Your task to perform on an android device: Show me the alarms in the clock app Image 0: 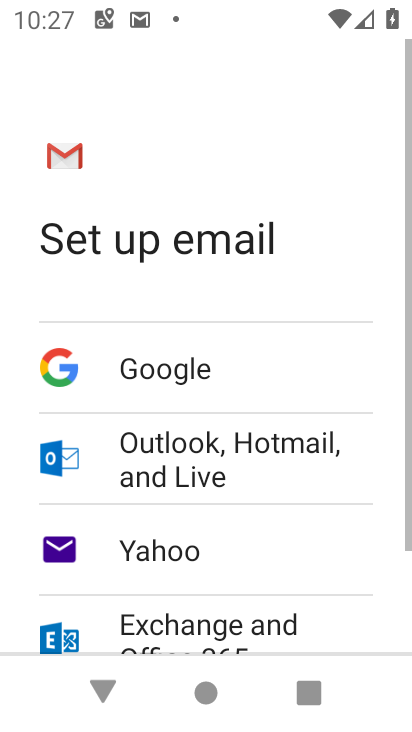
Step 0: press home button
Your task to perform on an android device: Show me the alarms in the clock app Image 1: 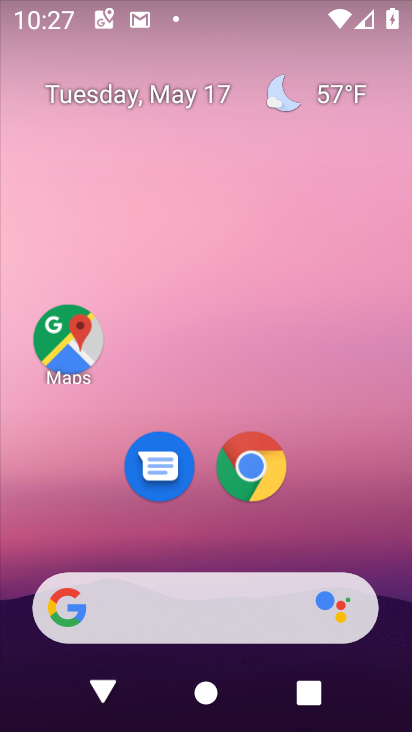
Step 1: drag from (253, 604) to (220, 218)
Your task to perform on an android device: Show me the alarms in the clock app Image 2: 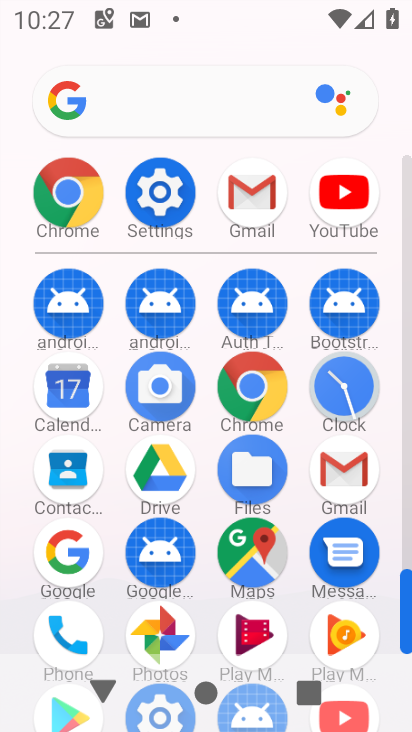
Step 2: click (336, 391)
Your task to perform on an android device: Show me the alarms in the clock app Image 3: 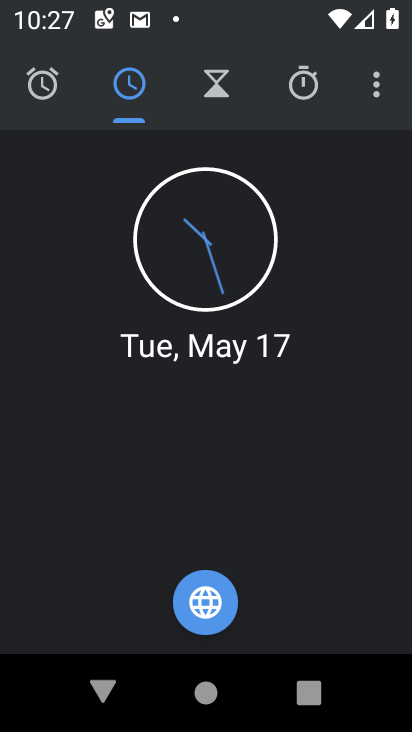
Step 3: click (370, 100)
Your task to perform on an android device: Show me the alarms in the clock app Image 4: 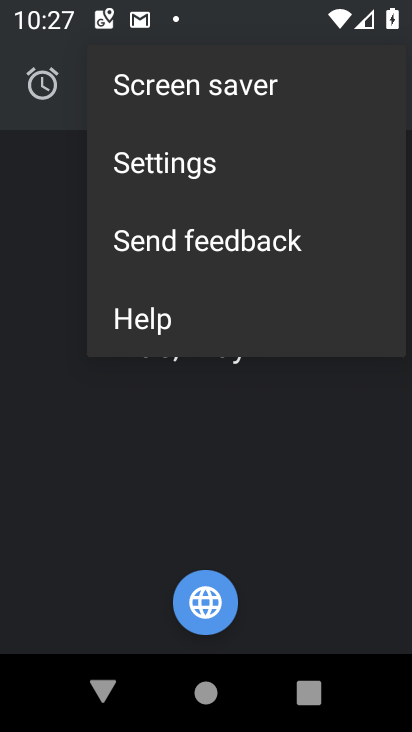
Step 4: click (37, 86)
Your task to perform on an android device: Show me the alarms in the clock app Image 5: 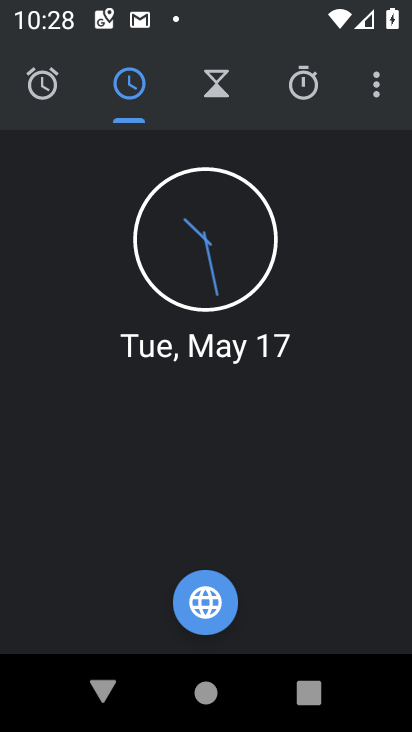
Step 5: click (29, 94)
Your task to perform on an android device: Show me the alarms in the clock app Image 6: 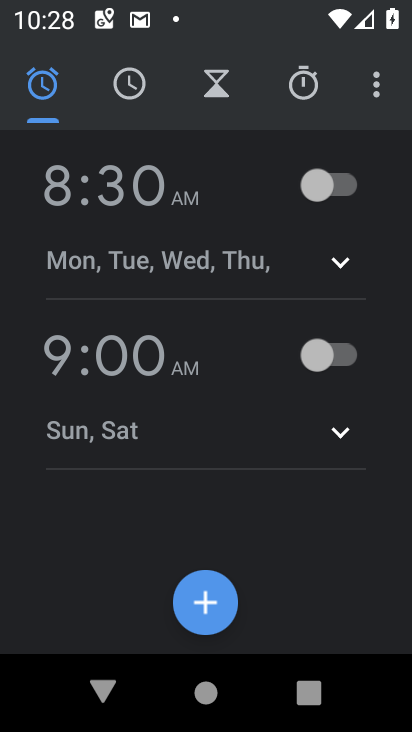
Step 6: task complete